Your task to perform on an android device: Add bose soundlink to the cart on amazon, then select checkout. Image 0: 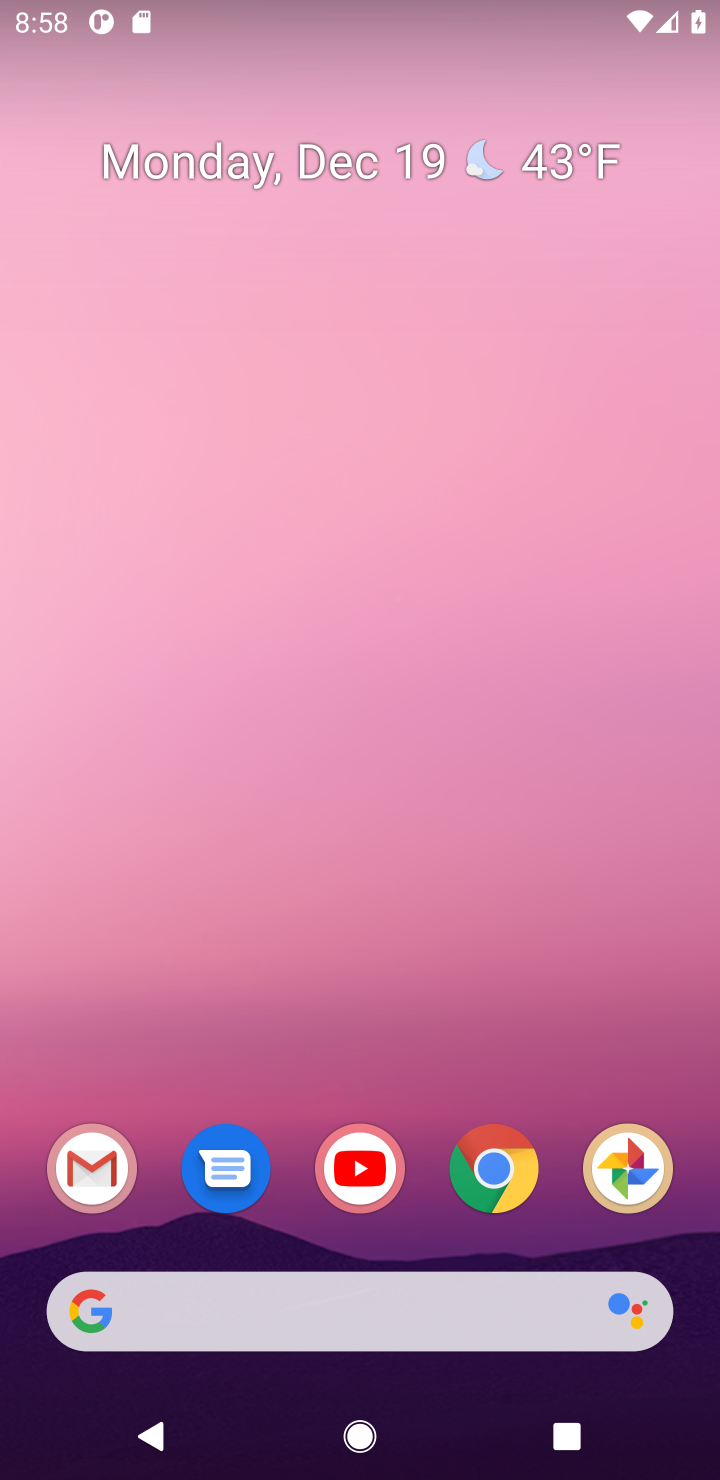
Step 0: click (501, 1180)
Your task to perform on an android device: Add bose soundlink to the cart on amazon, then select checkout. Image 1: 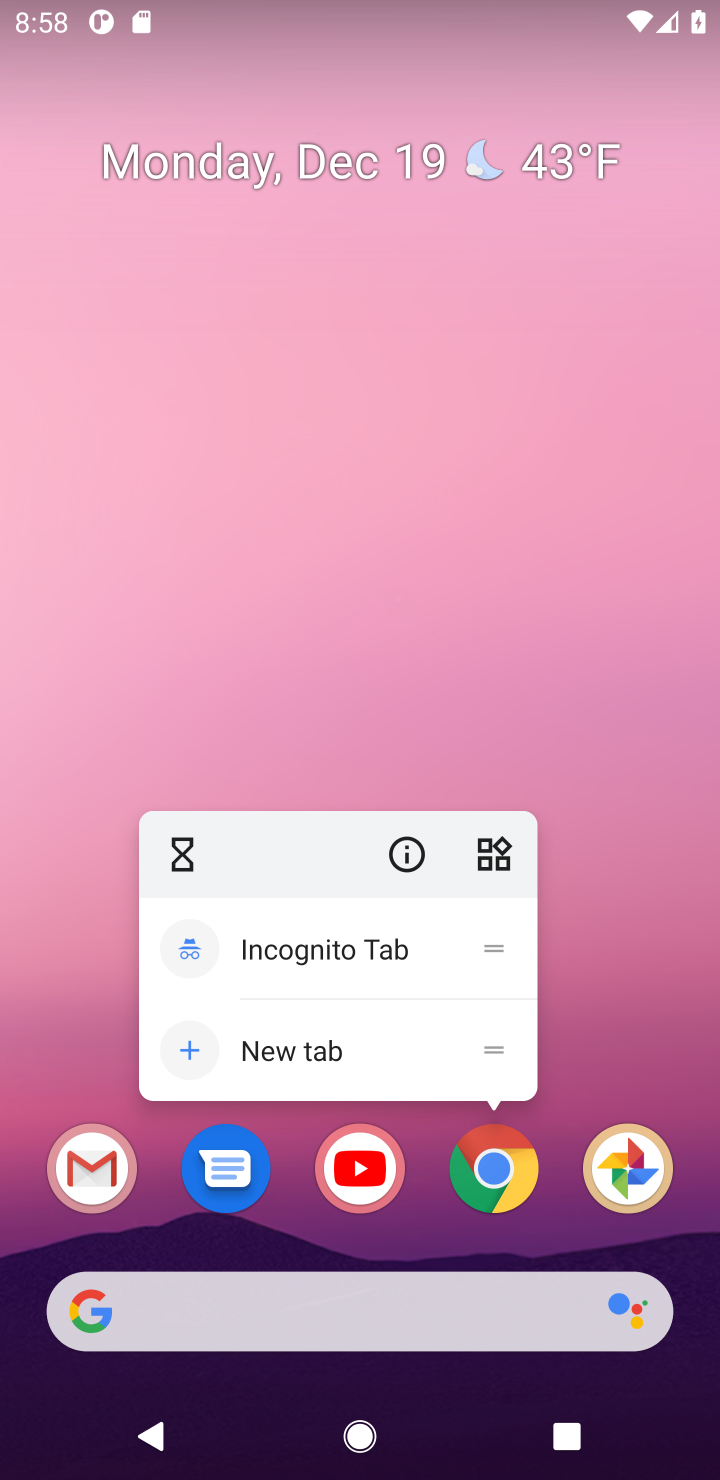
Step 1: click (501, 1180)
Your task to perform on an android device: Add bose soundlink to the cart on amazon, then select checkout. Image 2: 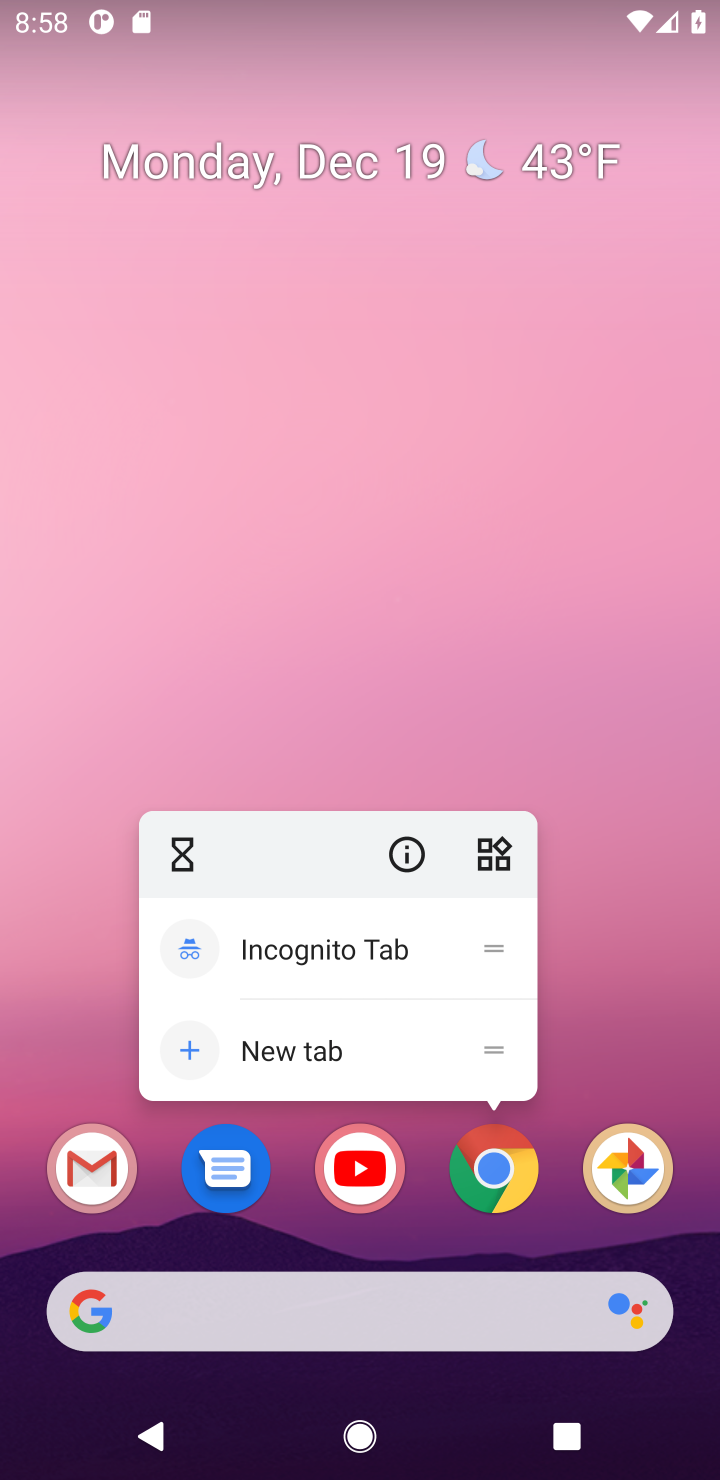
Step 2: click (501, 1180)
Your task to perform on an android device: Add bose soundlink to the cart on amazon, then select checkout. Image 3: 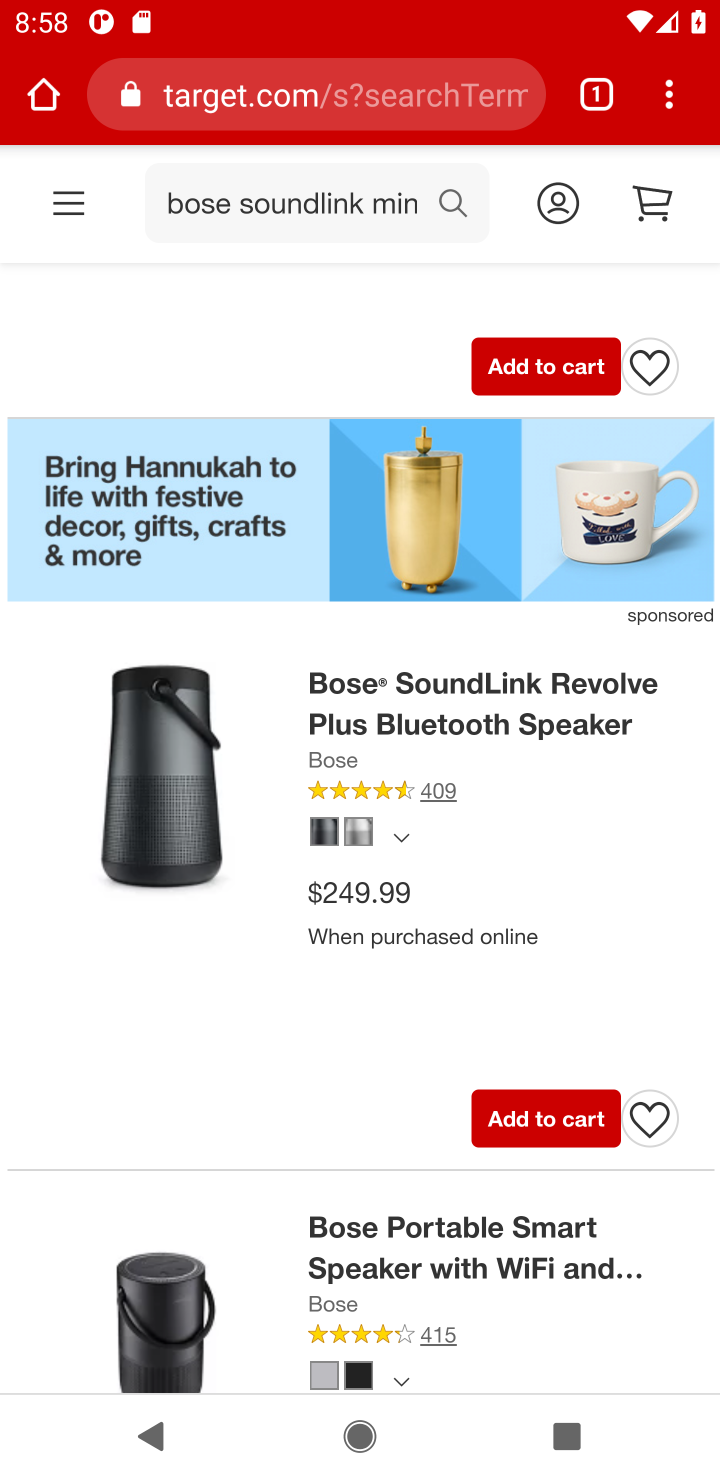
Step 3: click (289, 117)
Your task to perform on an android device: Add bose soundlink to the cart on amazon, then select checkout. Image 4: 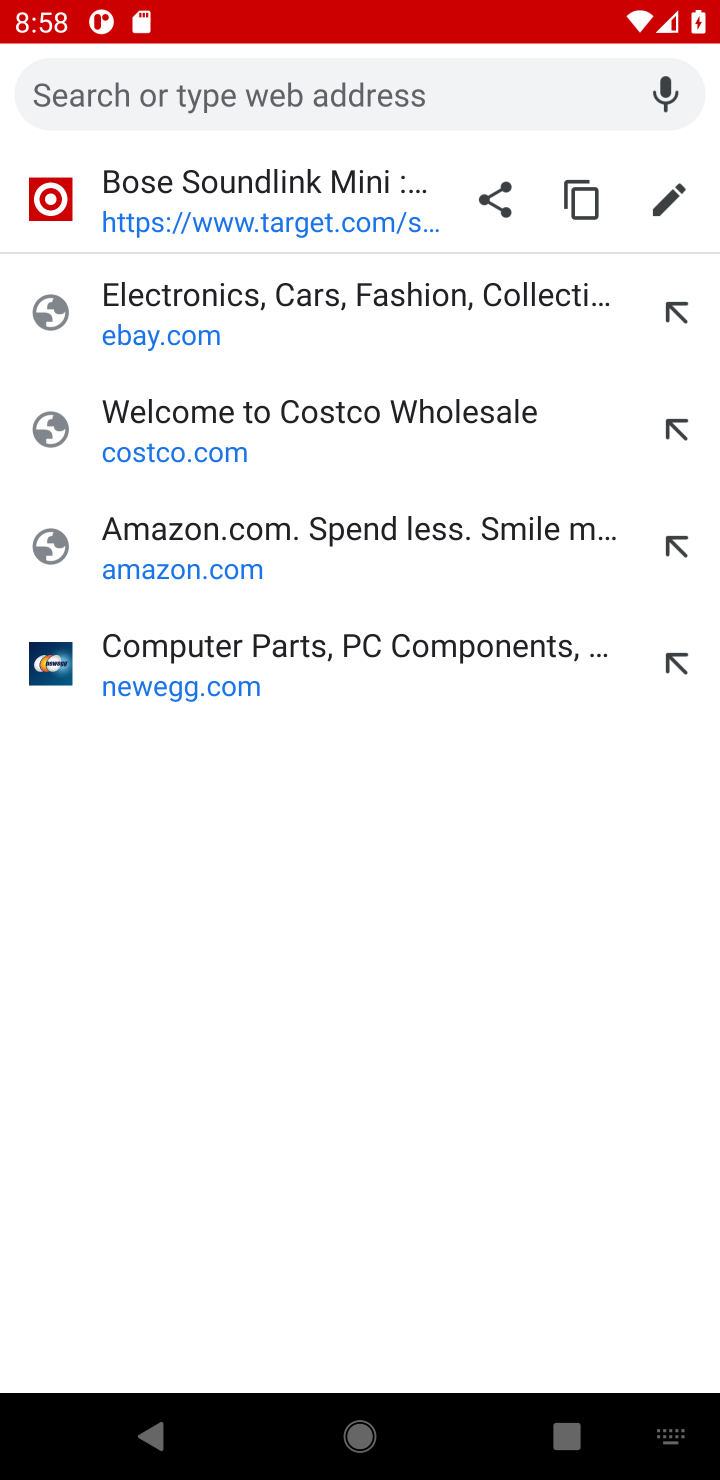
Step 4: click (160, 546)
Your task to perform on an android device: Add bose soundlink to the cart on amazon, then select checkout. Image 5: 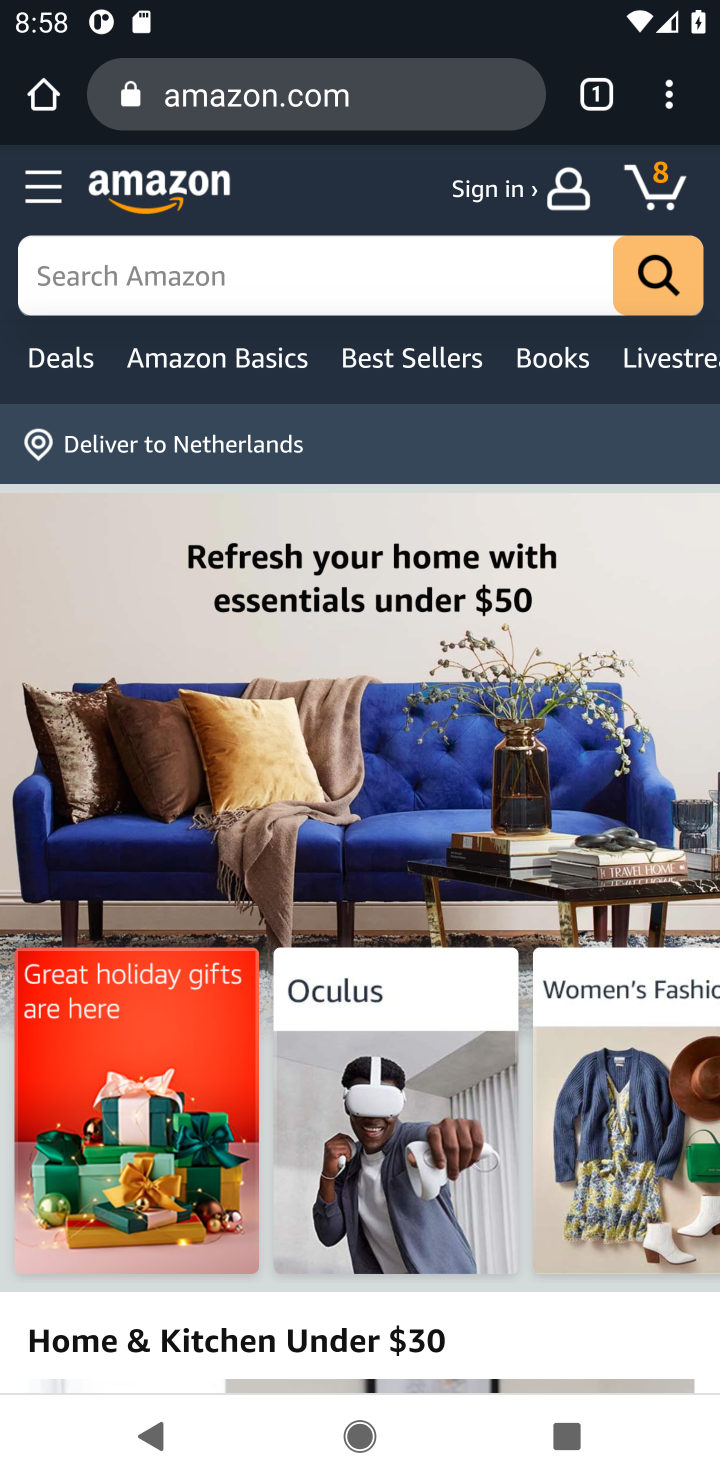
Step 5: click (173, 284)
Your task to perform on an android device: Add bose soundlink to the cart on amazon, then select checkout. Image 6: 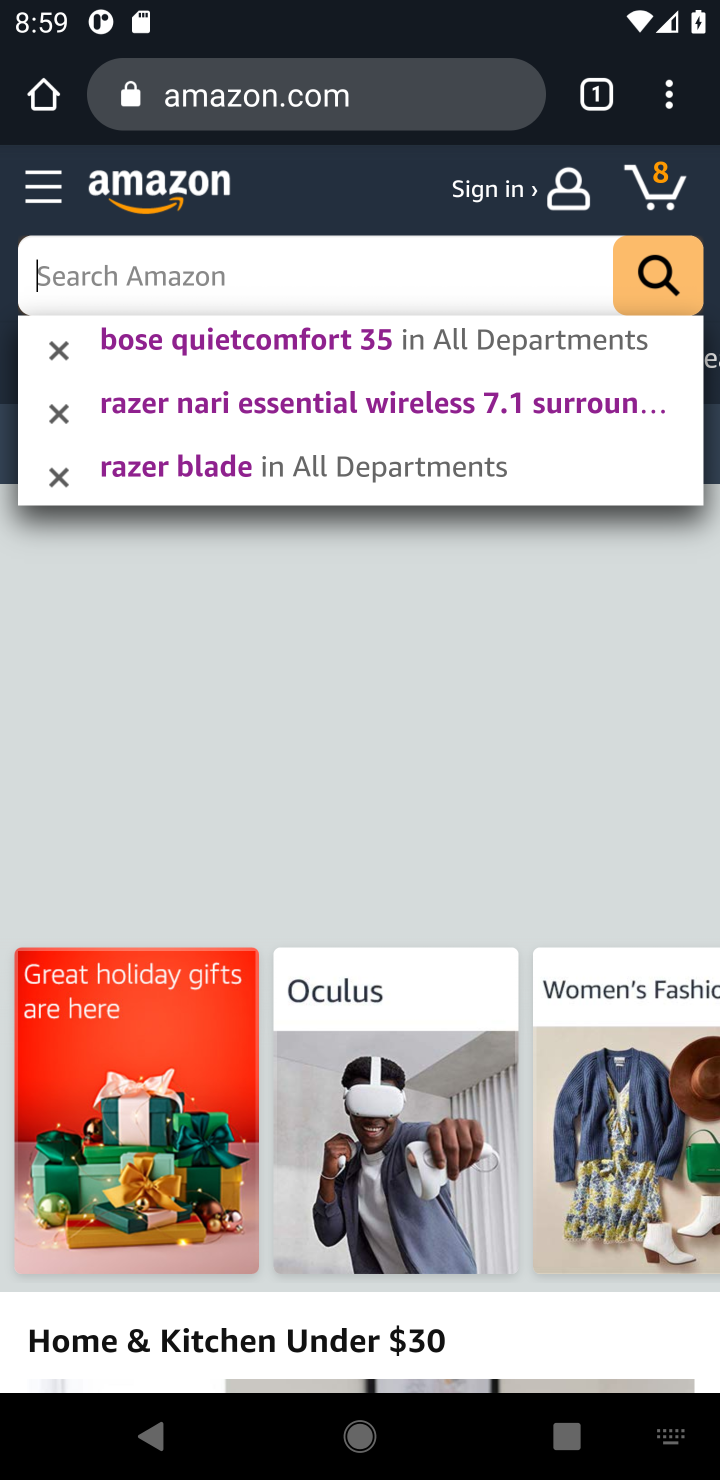
Step 6: type "bose soundlink "
Your task to perform on an android device: Add bose soundlink to the cart on amazon, then select checkout. Image 7: 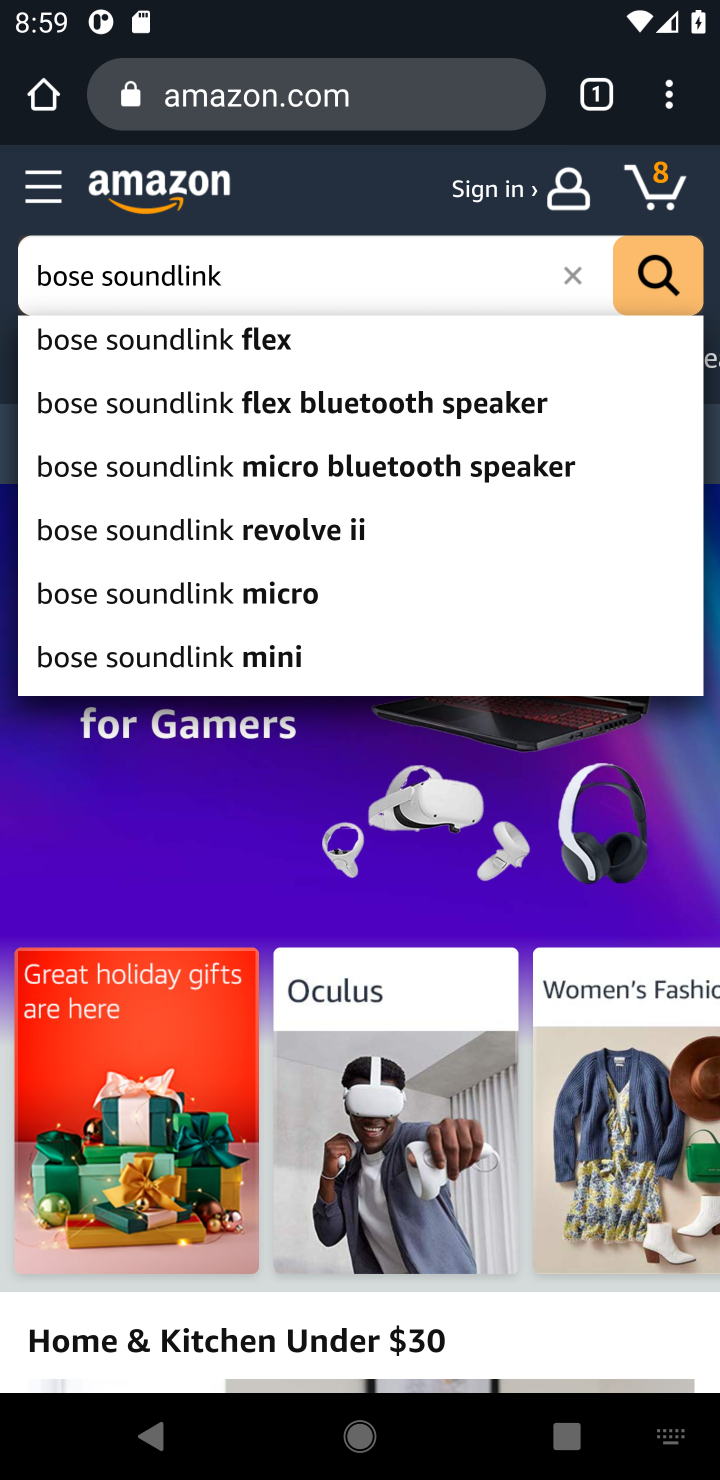
Step 7: click (657, 288)
Your task to perform on an android device: Add bose soundlink to the cart on amazon, then select checkout. Image 8: 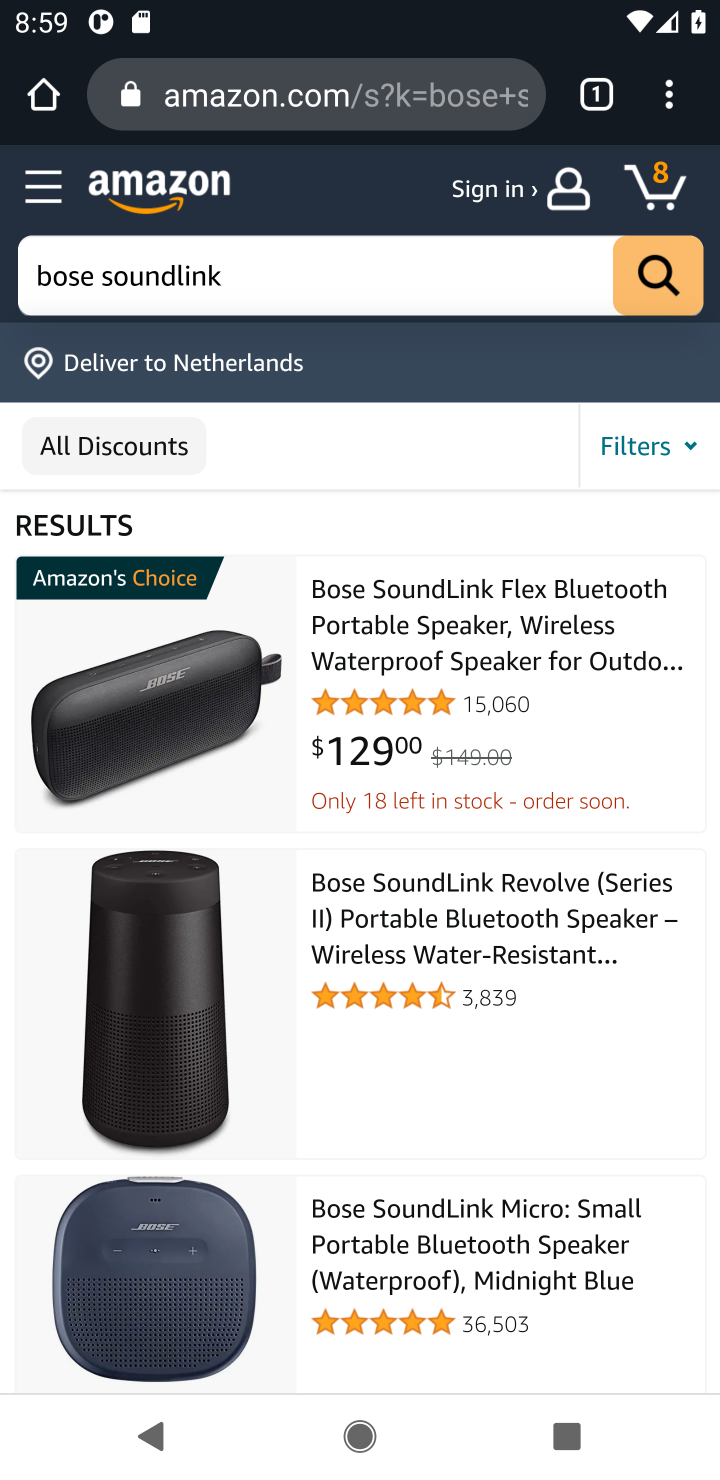
Step 8: click (399, 653)
Your task to perform on an android device: Add bose soundlink to the cart on amazon, then select checkout. Image 9: 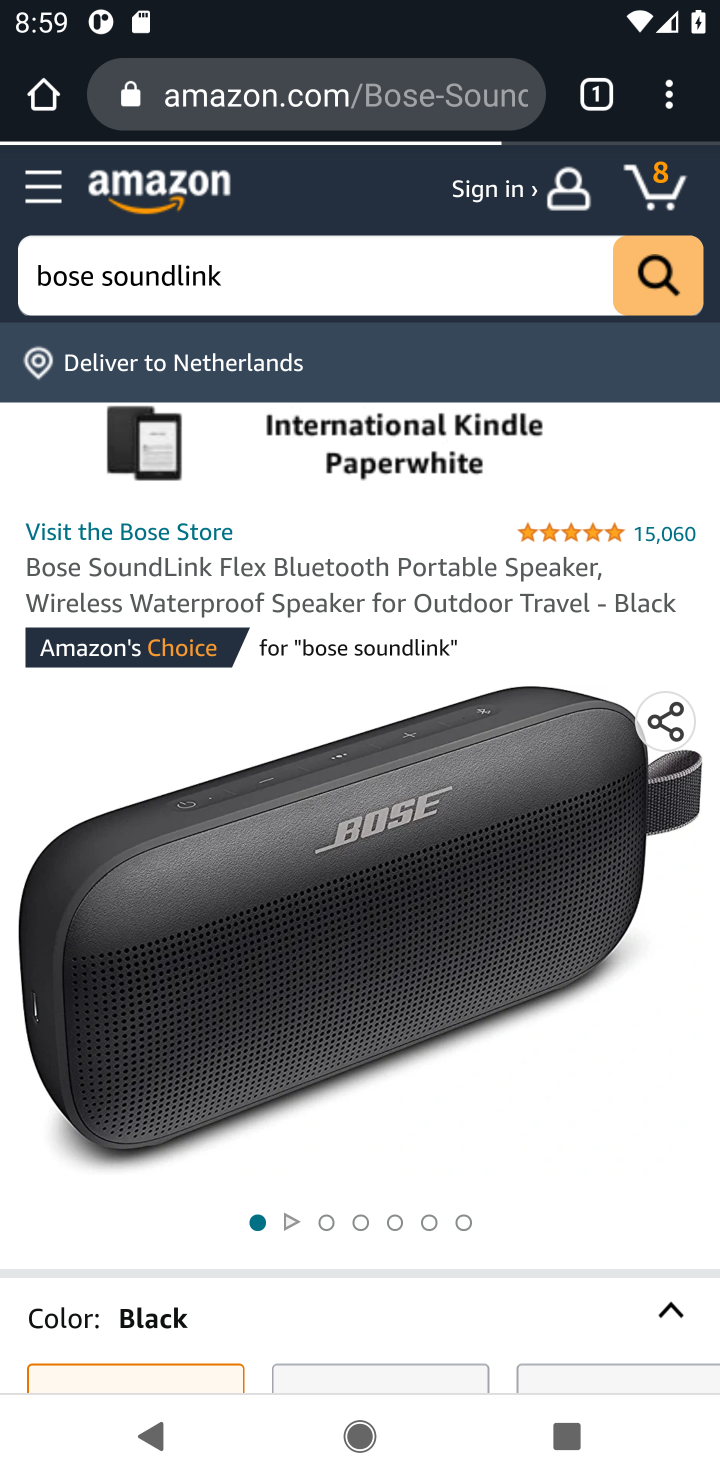
Step 9: drag from (371, 1041) to (373, 482)
Your task to perform on an android device: Add bose soundlink to the cart on amazon, then select checkout. Image 10: 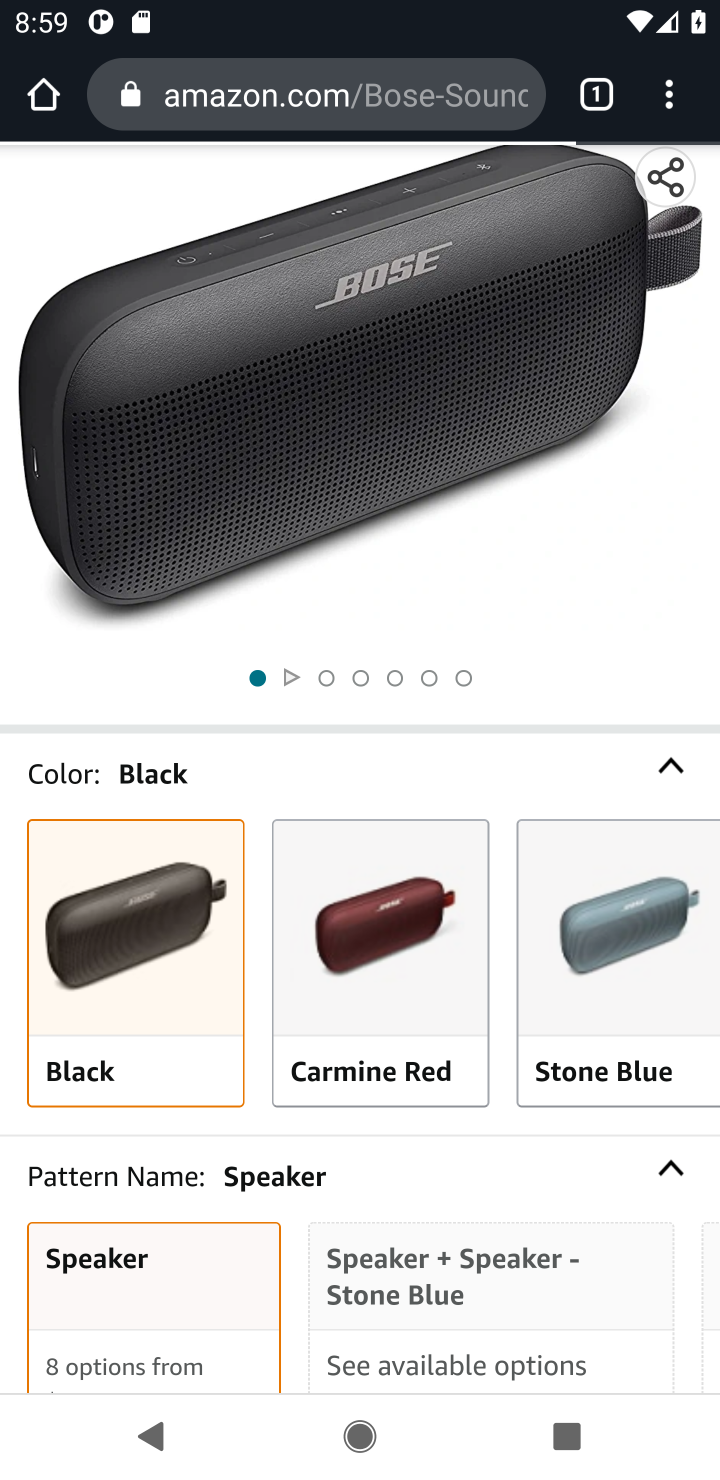
Step 10: drag from (364, 1104) to (376, 568)
Your task to perform on an android device: Add bose soundlink to the cart on amazon, then select checkout. Image 11: 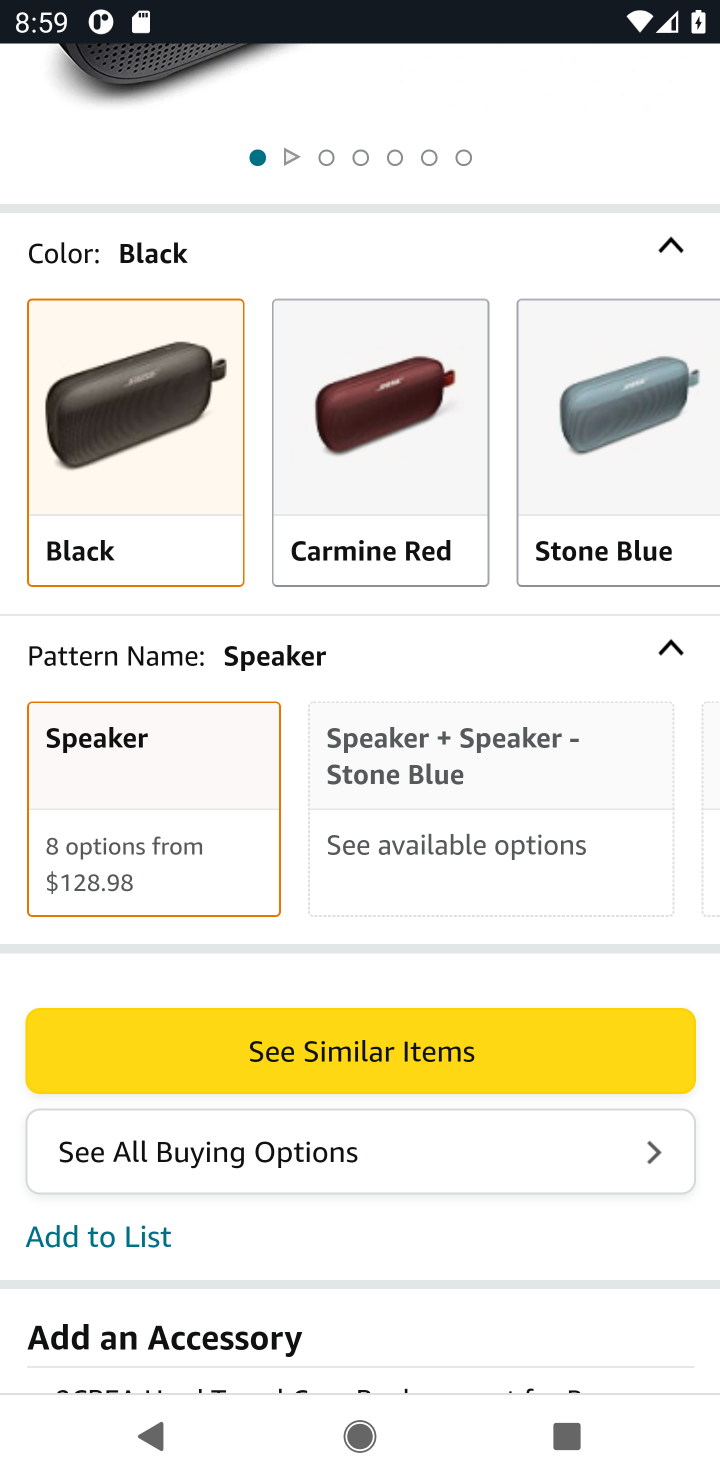
Step 11: press back button
Your task to perform on an android device: Add bose soundlink to the cart on amazon, then select checkout. Image 12: 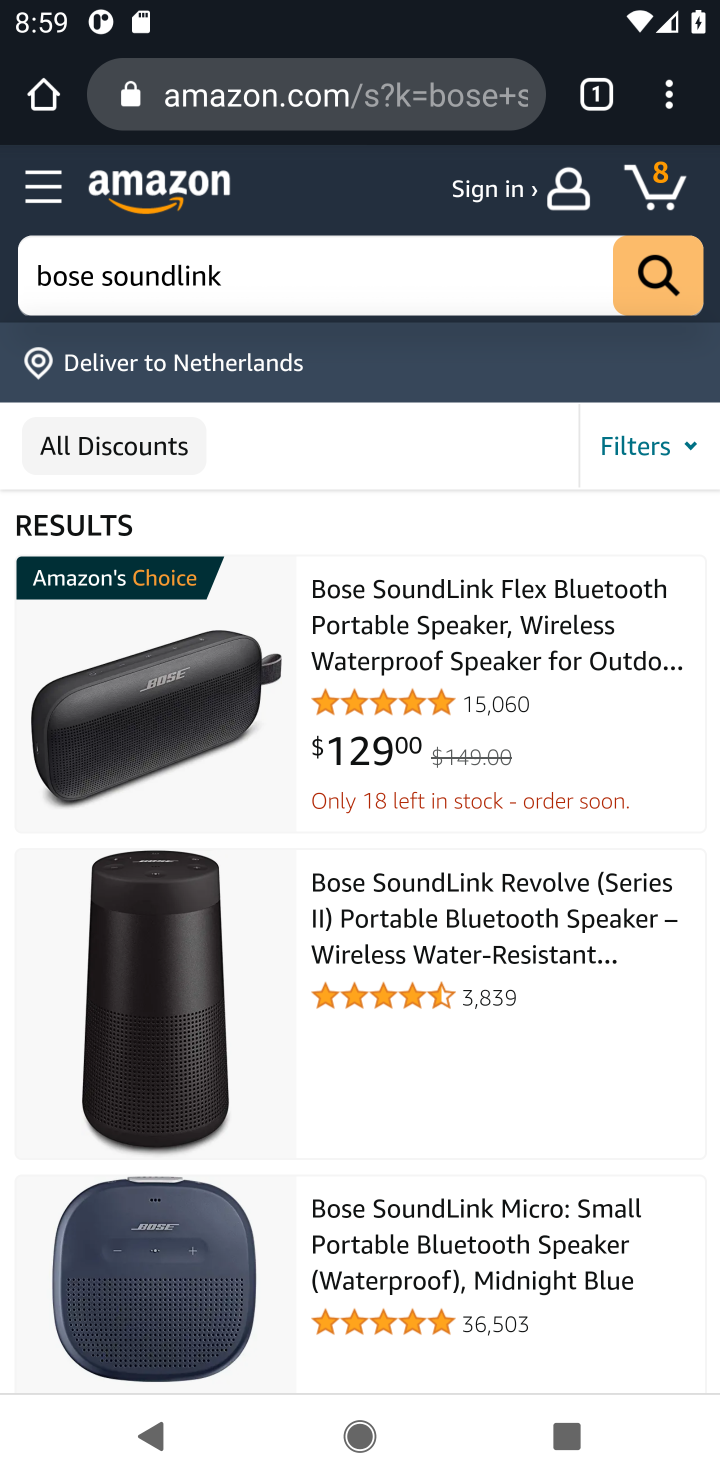
Step 12: drag from (398, 964) to (369, 519)
Your task to perform on an android device: Add bose soundlink to the cart on amazon, then select checkout. Image 13: 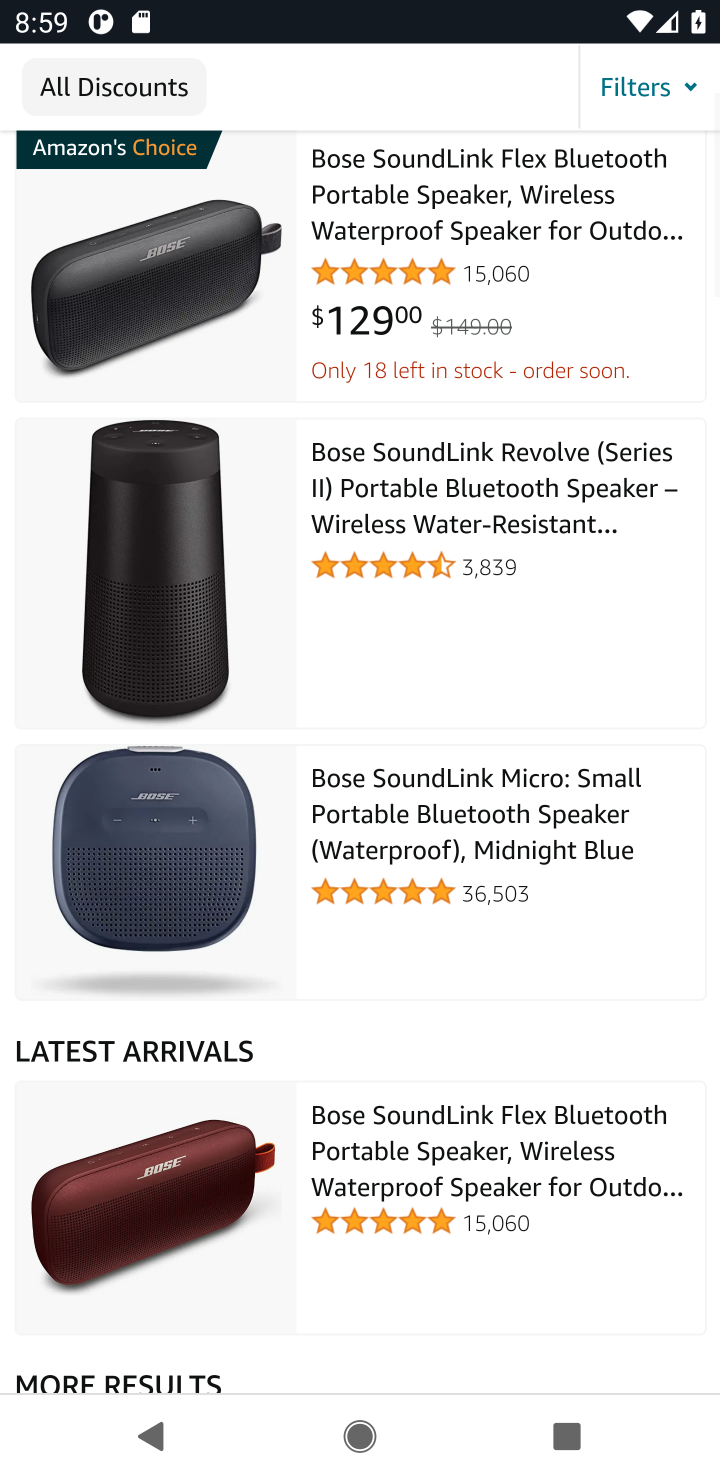
Step 13: drag from (377, 1143) to (333, 419)
Your task to perform on an android device: Add bose soundlink to the cart on amazon, then select checkout. Image 14: 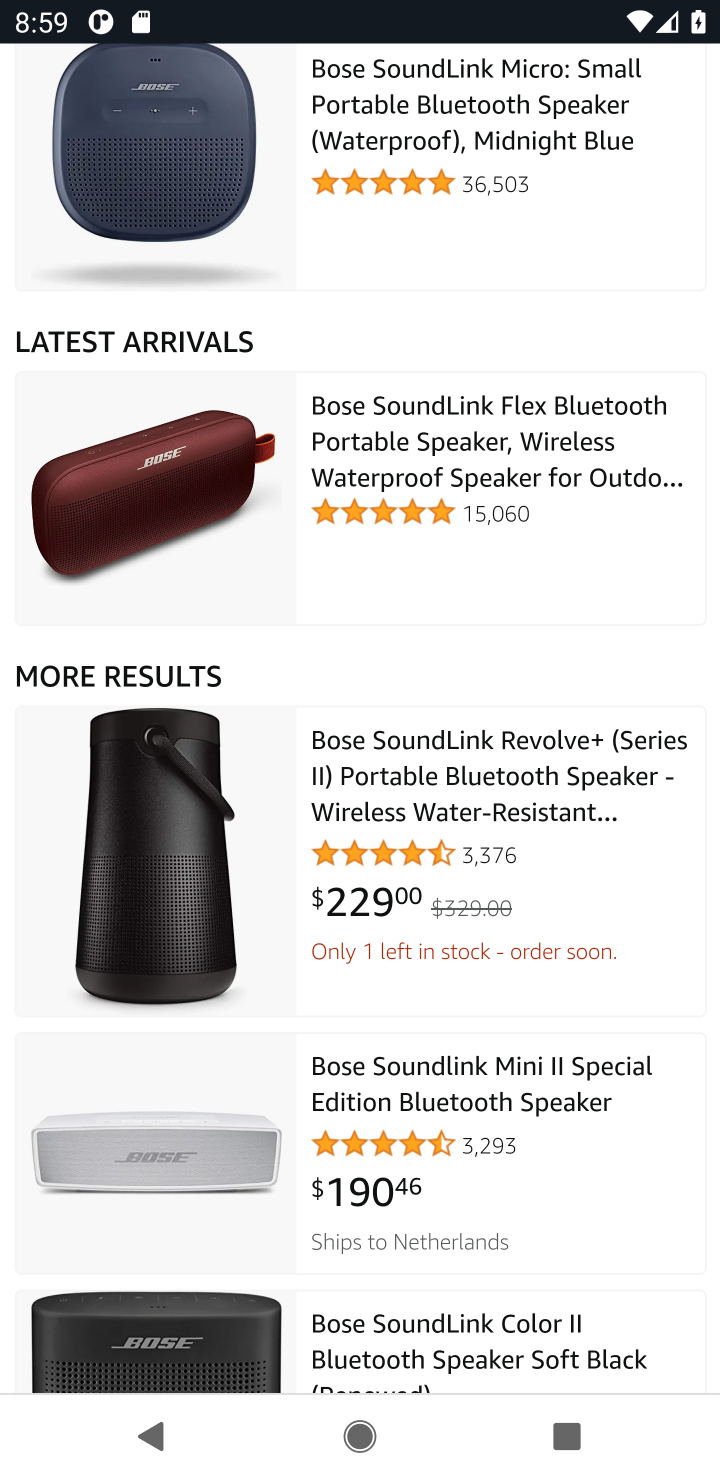
Step 14: drag from (359, 940) to (365, 569)
Your task to perform on an android device: Add bose soundlink to the cart on amazon, then select checkout. Image 15: 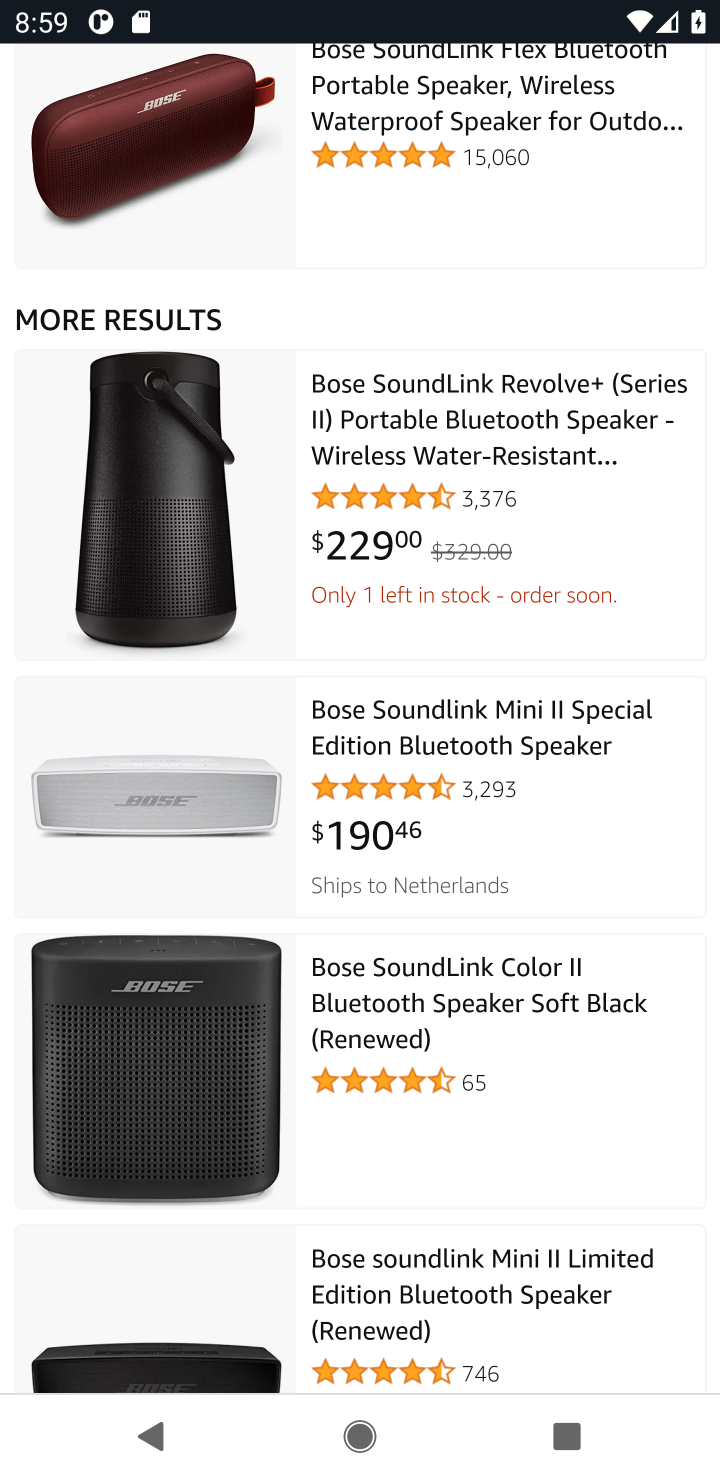
Step 15: click (379, 774)
Your task to perform on an android device: Add bose soundlink to the cart on amazon, then select checkout. Image 16: 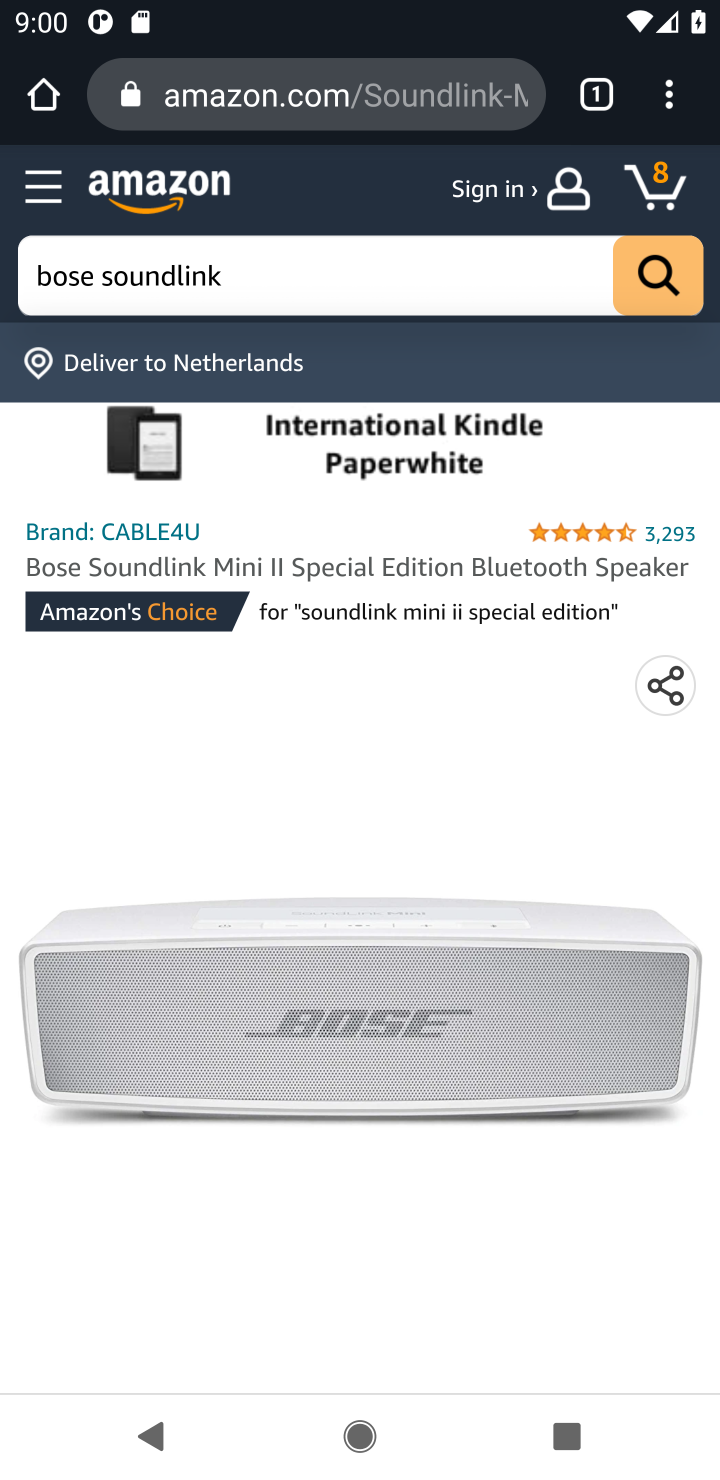
Step 16: drag from (318, 928) to (284, 409)
Your task to perform on an android device: Add bose soundlink to the cart on amazon, then select checkout. Image 17: 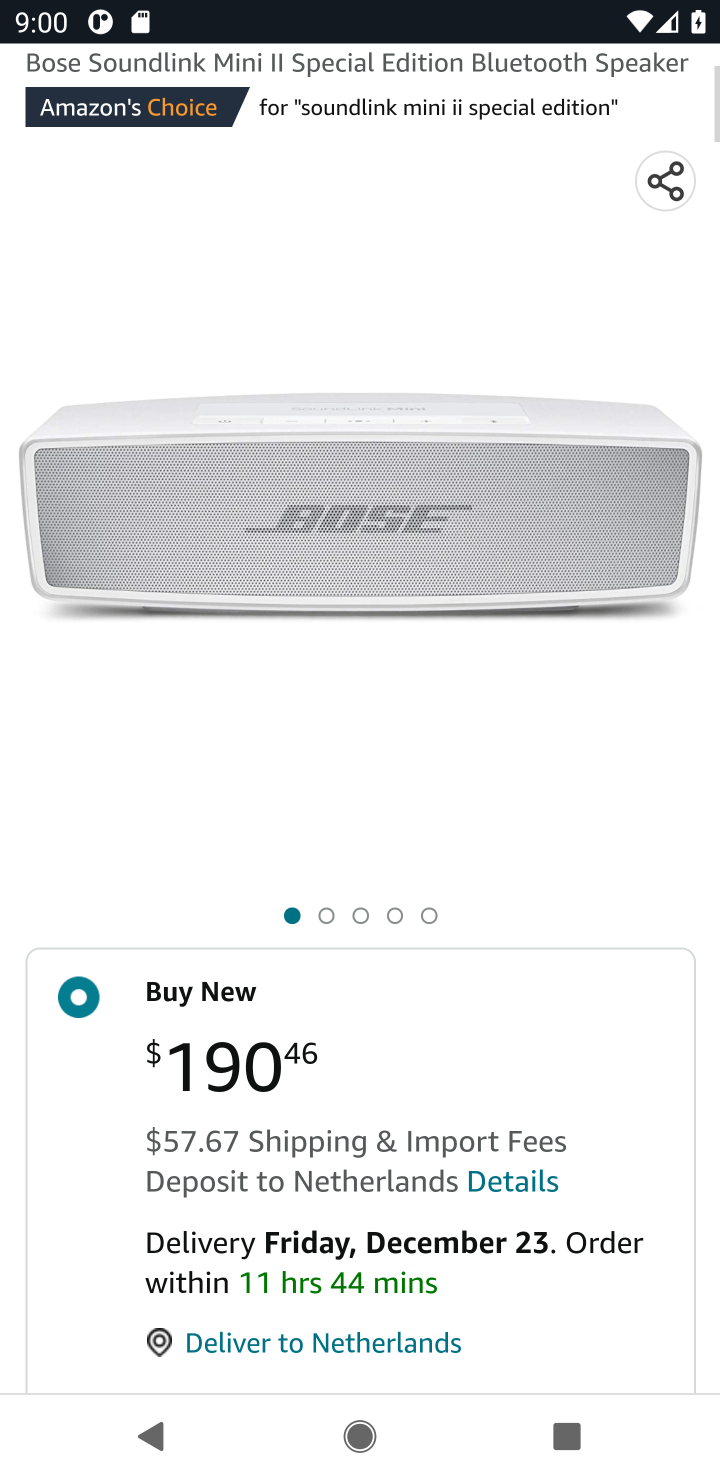
Step 17: drag from (302, 1046) to (260, 498)
Your task to perform on an android device: Add bose soundlink to the cart on amazon, then select checkout. Image 18: 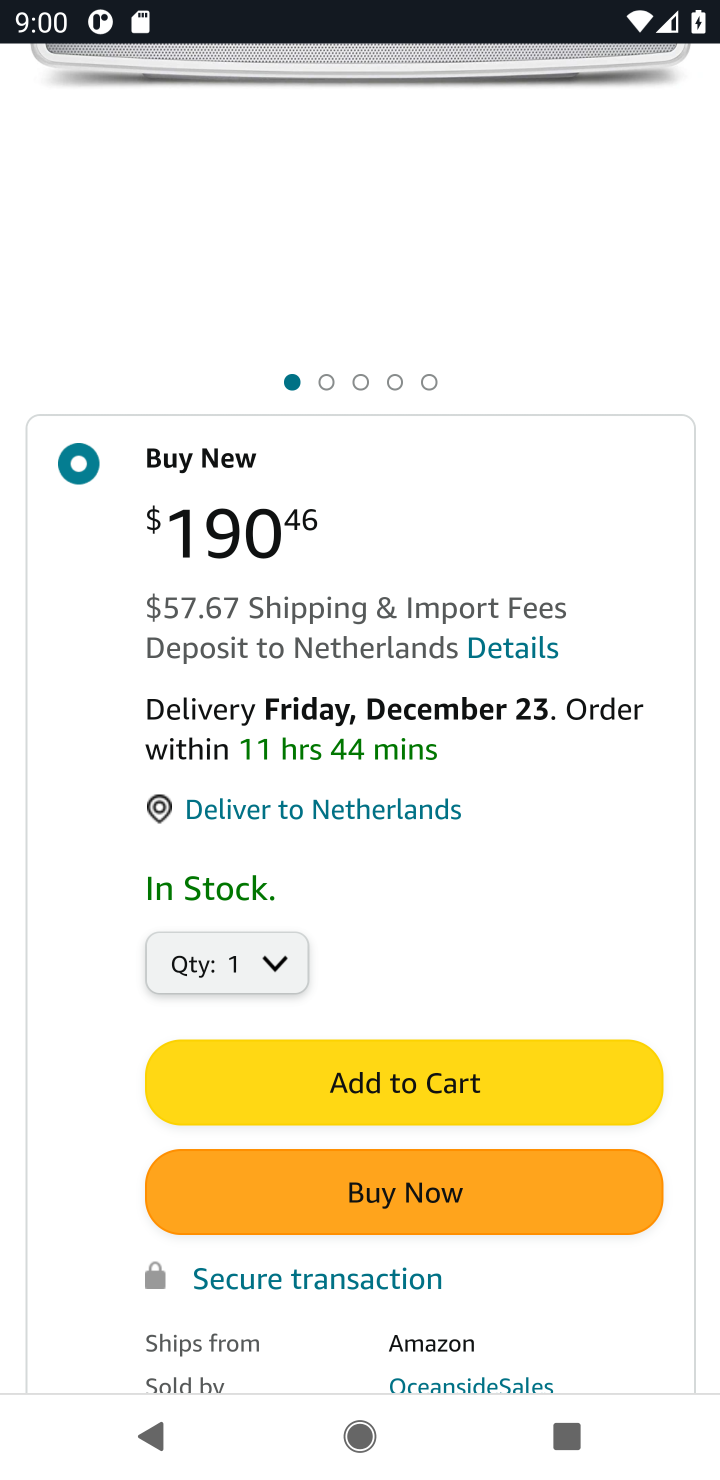
Step 18: click (366, 1083)
Your task to perform on an android device: Add bose soundlink to the cart on amazon, then select checkout. Image 19: 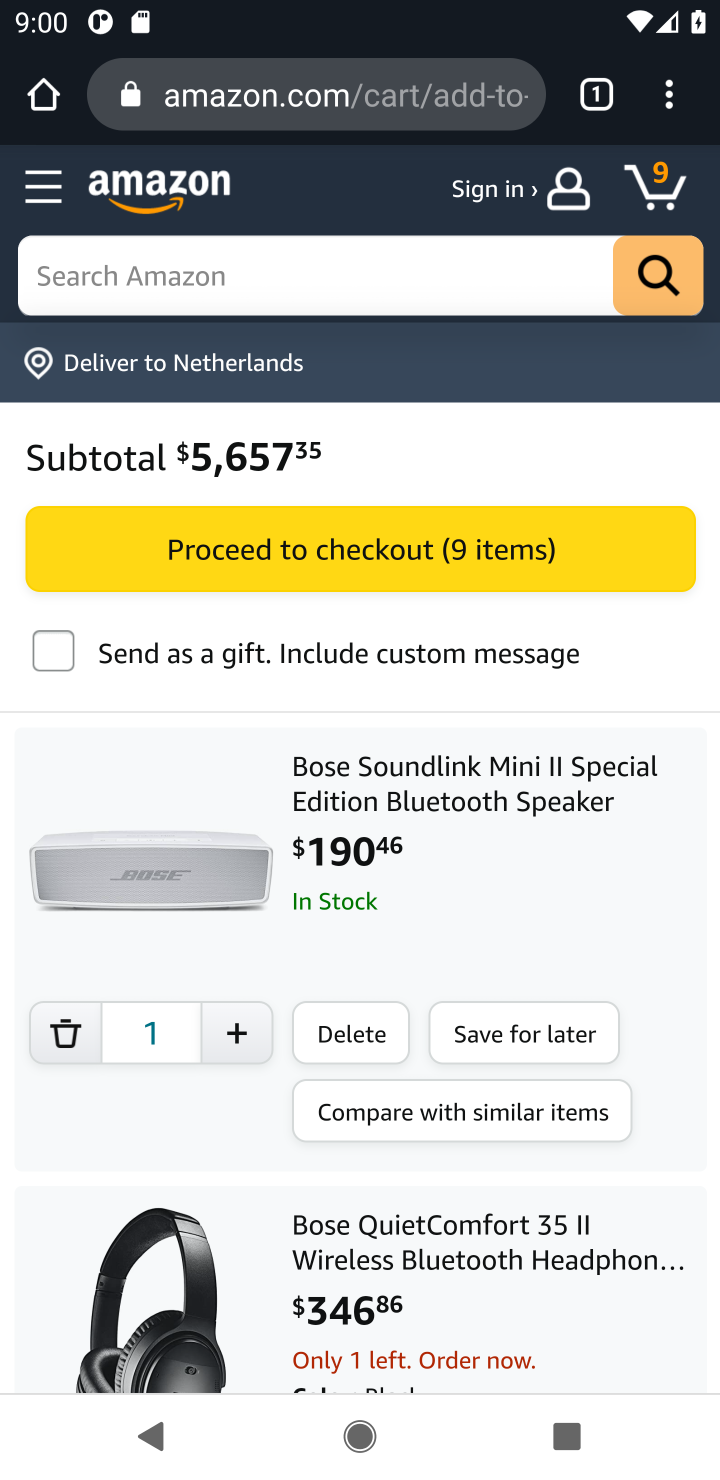
Step 19: click (314, 559)
Your task to perform on an android device: Add bose soundlink to the cart on amazon, then select checkout. Image 20: 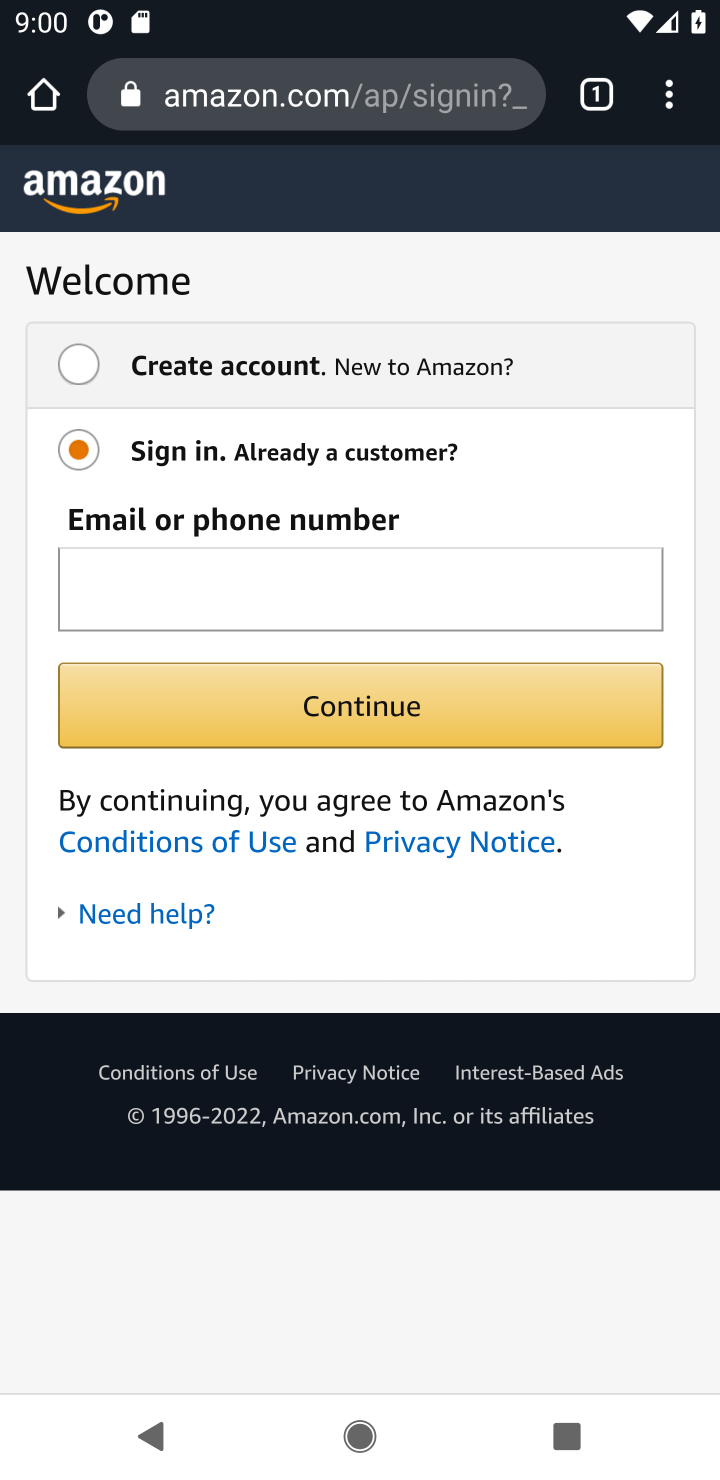
Step 20: task complete